Your task to perform on an android device: Open Google Maps Image 0: 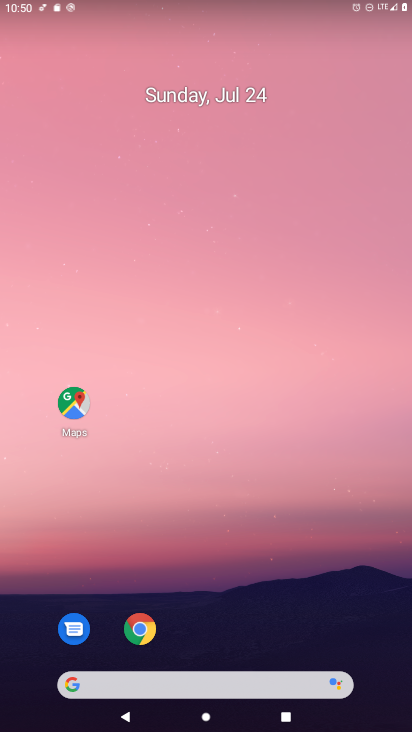
Step 0: drag from (362, 651) to (101, 39)
Your task to perform on an android device: Open Google Maps Image 1: 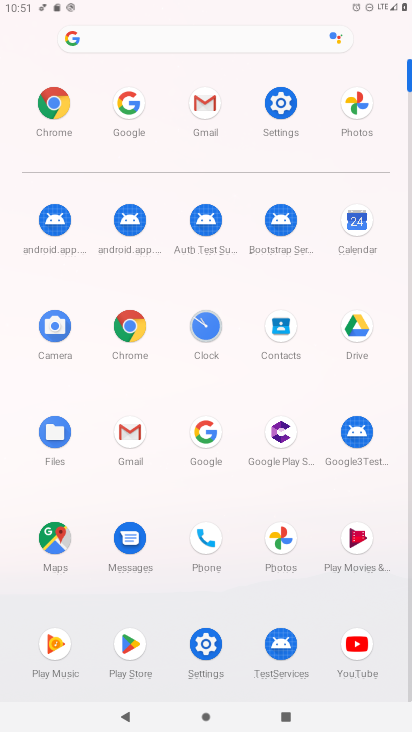
Step 1: click (44, 549)
Your task to perform on an android device: Open Google Maps Image 2: 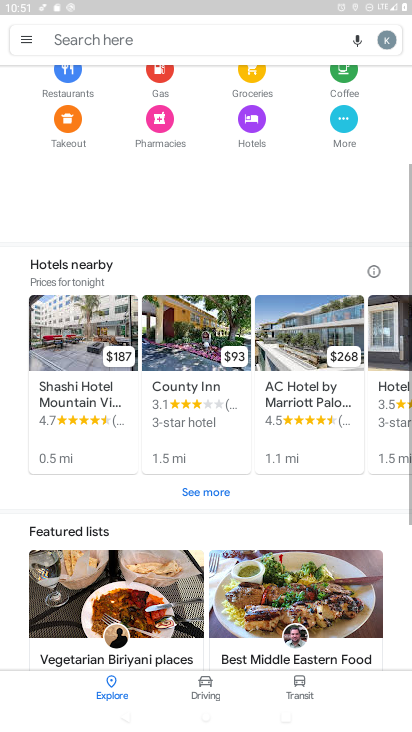
Step 2: task complete